Your task to perform on an android device: toggle show notifications on the lock screen Image 0: 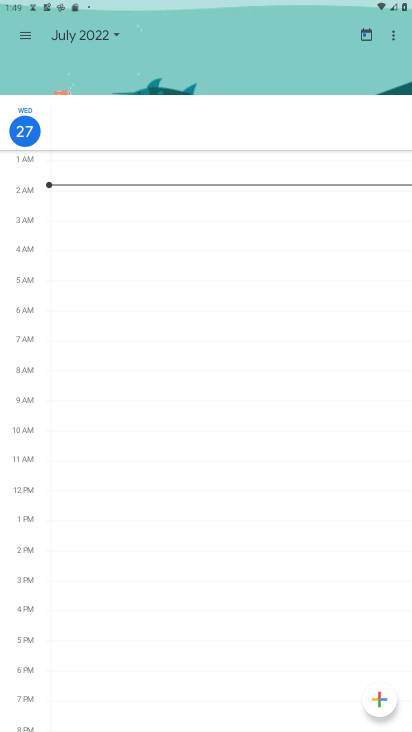
Step 0: press home button
Your task to perform on an android device: toggle show notifications on the lock screen Image 1: 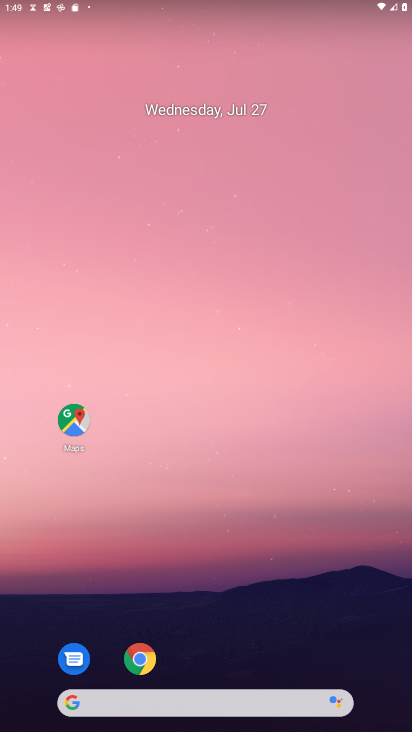
Step 1: drag from (23, 578) to (177, 14)
Your task to perform on an android device: toggle show notifications on the lock screen Image 2: 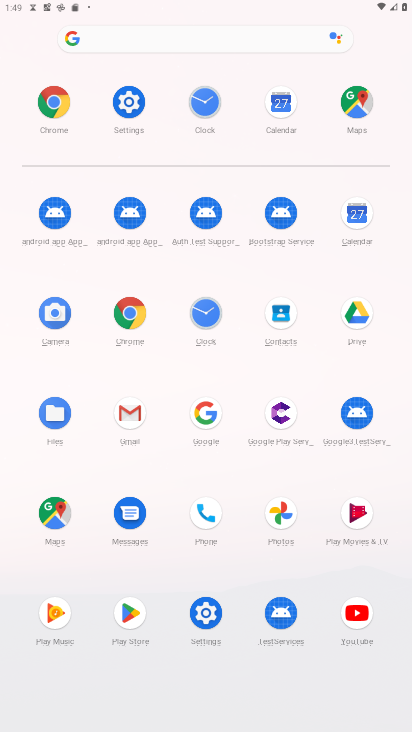
Step 2: click (119, 102)
Your task to perform on an android device: toggle show notifications on the lock screen Image 3: 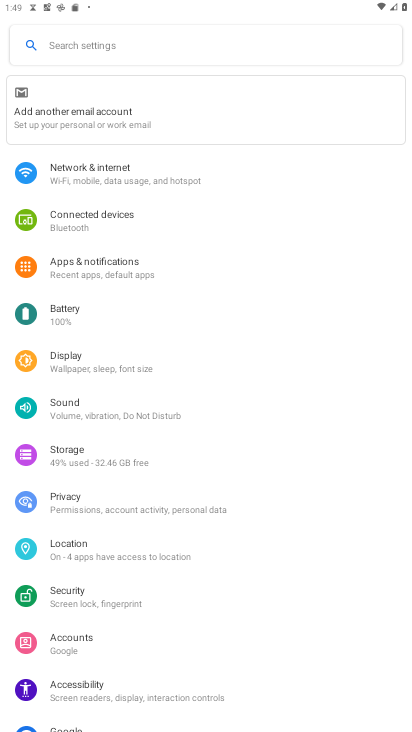
Step 3: click (133, 267)
Your task to perform on an android device: toggle show notifications on the lock screen Image 4: 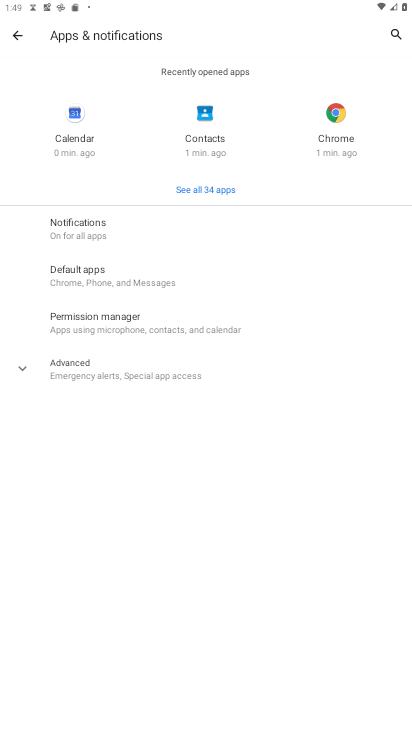
Step 4: click (134, 238)
Your task to perform on an android device: toggle show notifications on the lock screen Image 5: 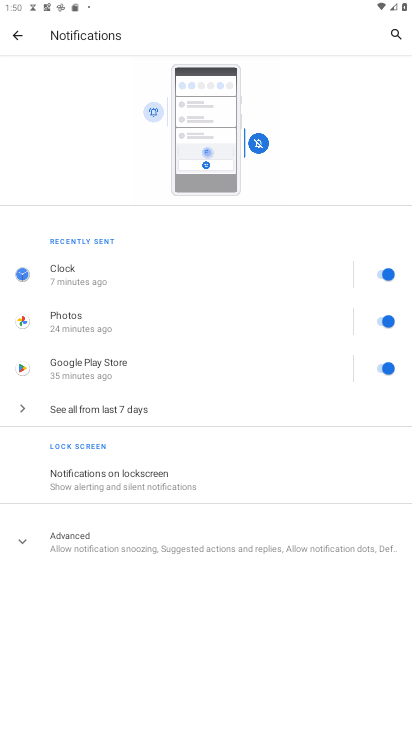
Step 5: click (193, 475)
Your task to perform on an android device: toggle show notifications on the lock screen Image 6: 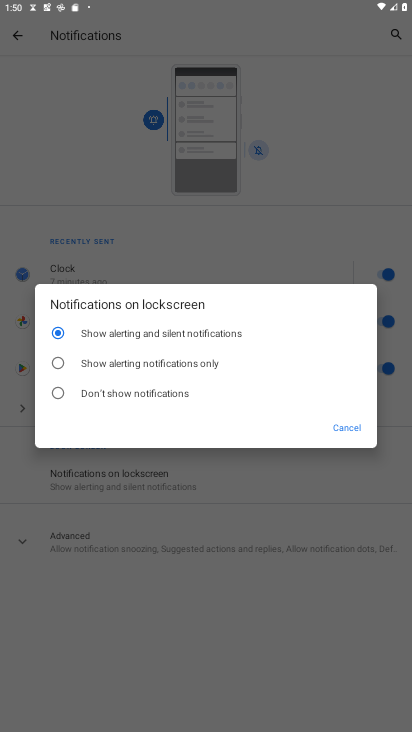
Step 6: click (72, 402)
Your task to perform on an android device: toggle show notifications on the lock screen Image 7: 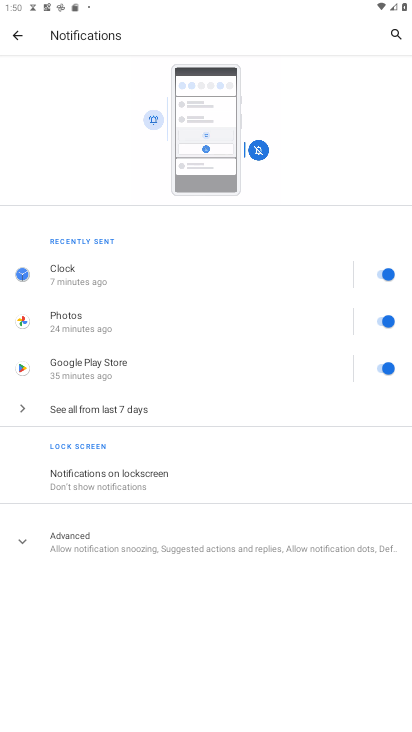
Step 7: task complete